Your task to perform on an android device: open app "Google Find My Device" (install if not already installed) Image 0: 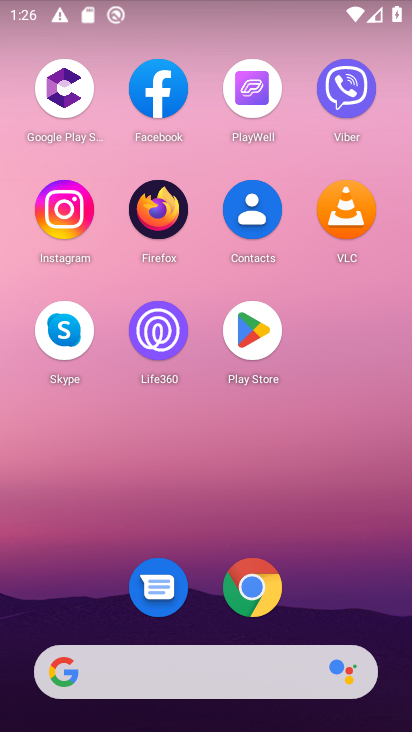
Step 0: press home button
Your task to perform on an android device: open app "Google Find My Device" (install if not already installed) Image 1: 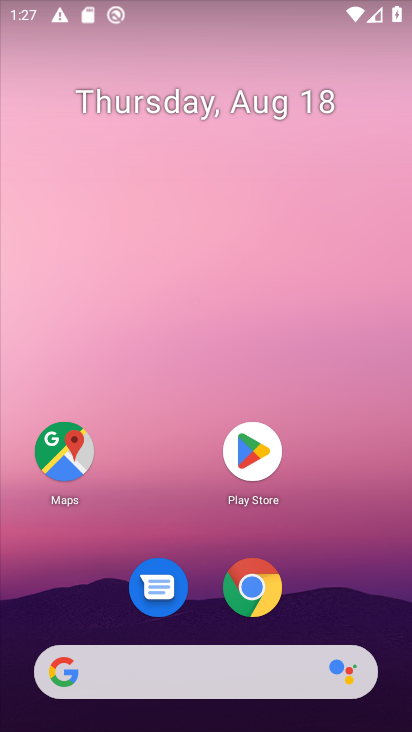
Step 1: click (253, 451)
Your task to perform on an android device: open app "Google Find My Device" (install if not already installed) Image 2: 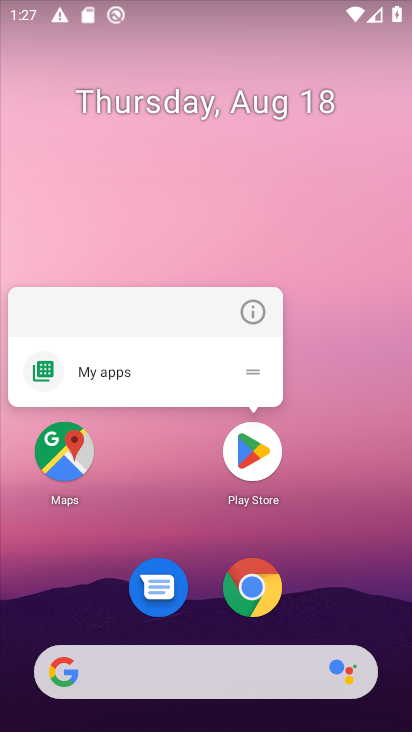
Step 2: click (253, 451)
Your task to perform on an android device: open app "Google Find My Device" (install if not already installed) Image 3: 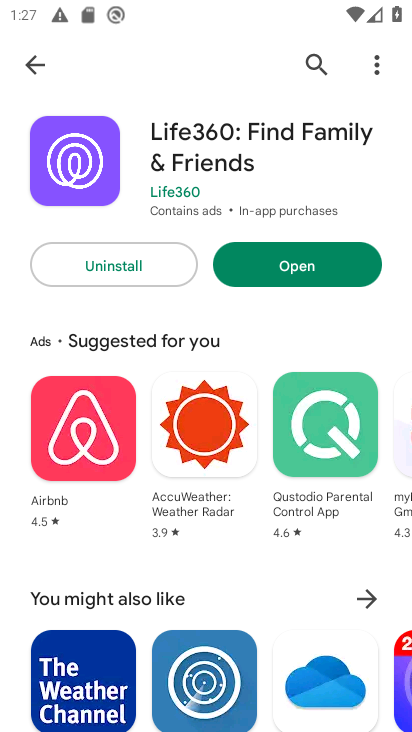
Step 3: click (313, 54)
Your task to perform on an android device: open app "Google Find My Device" (install if not already installed) Image 4: 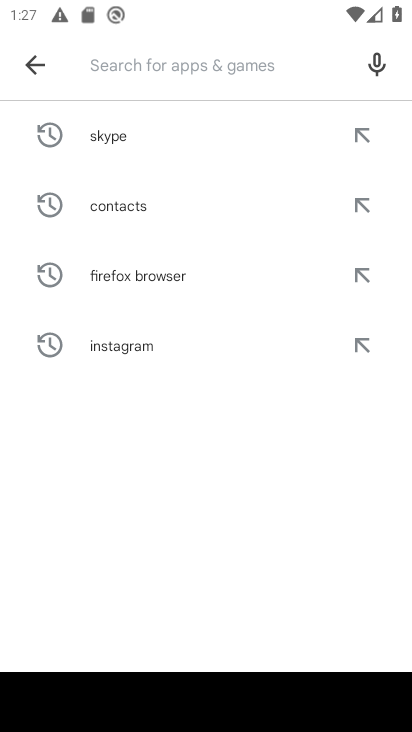
Step 4: type "Google Find My Device"
Your task to perform on an android device: open app "Google Find My Device" (install if not already installed) Image 5: 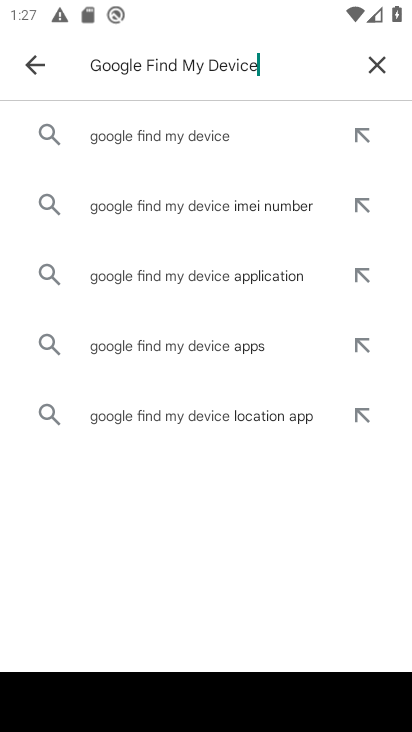
Step 5: click (170, 136)
Your task to perform on an android device: open app "Google Find My Device" (install if not already installed) Image 6: 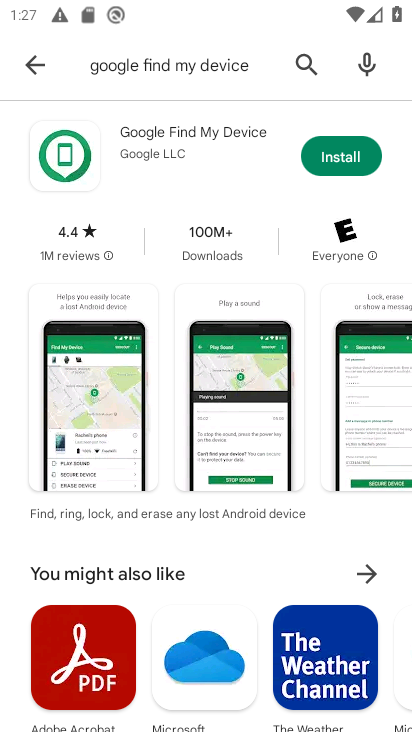
Step 6: click (329, 162)
Your task to perform on an android device: open app "Google Find My Device" (install if not already installed) Image 7: 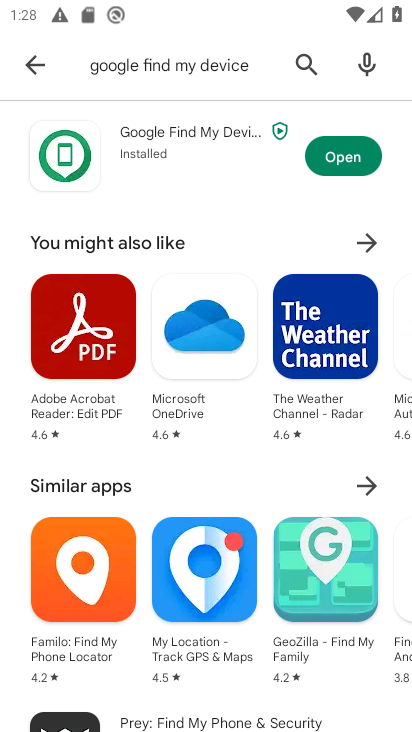
Step 7: click (324, 159)
Your task to perform on an android device: open app "Google Find My Device" (install if not already installed) Image 8: 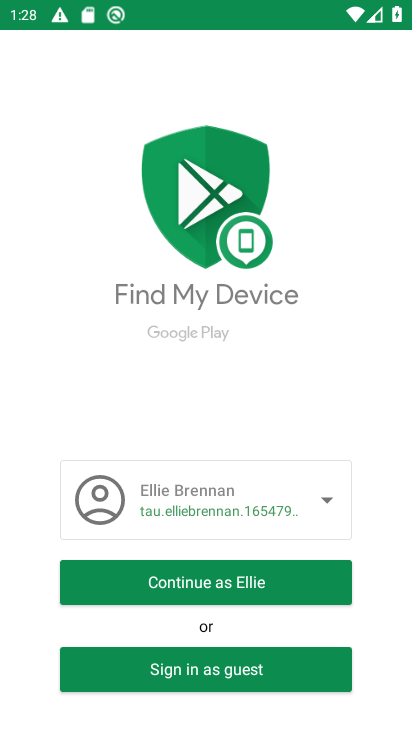
Step 8: task complete